Your task to perform on an android device: What's on my calendar tomorrow? Image 0: 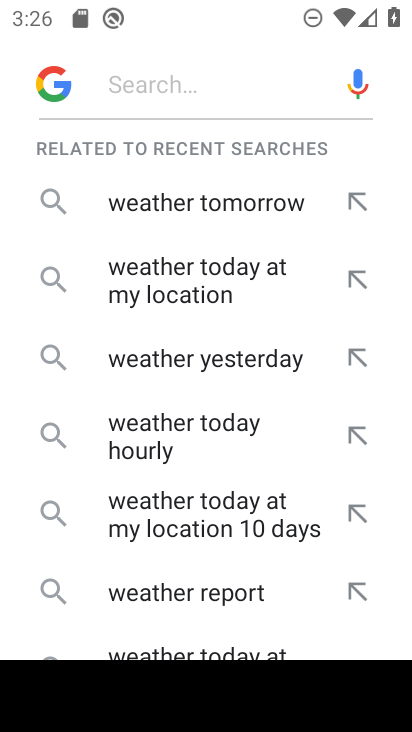
Step 0: press home button
Your task to perform on an android device: What's on my calendar tomorrow? Image 1: 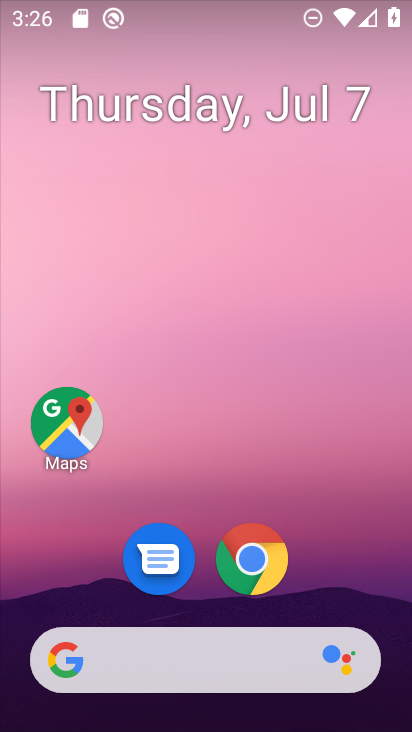
Step 1: drag from (372, 579) to (364, 148)
Your task to perform on an android device: What's on my calendar tomorrow? Image 2: 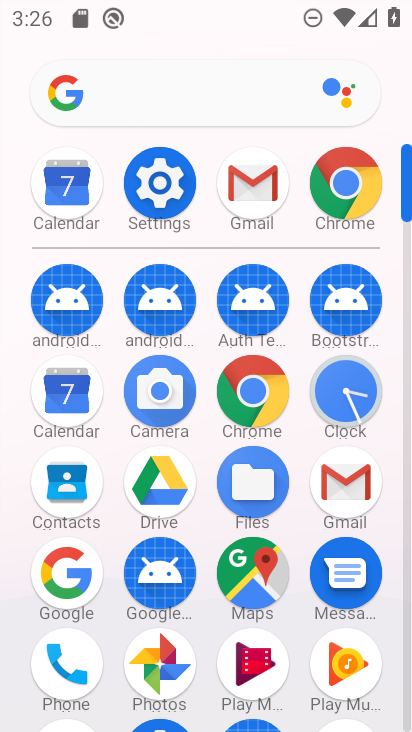
Step 2: click (81, 391)
Your task to perform on an android device: What's on my calendar tomorrow? Image 3: 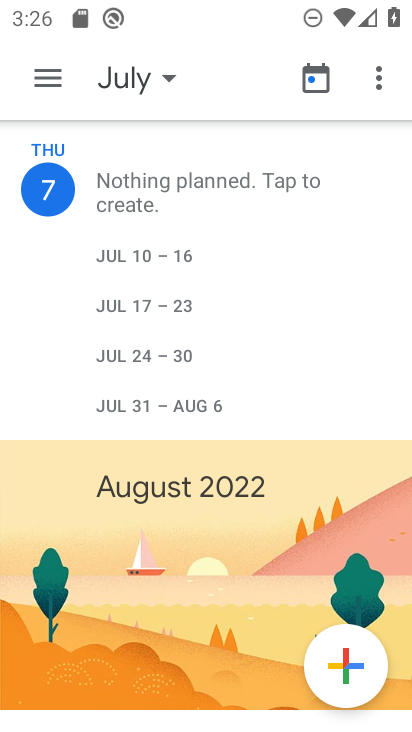
Step 3: click (168, 73)
Your task to perform on an android device: What's on my calendar tomorrow? Image 4: 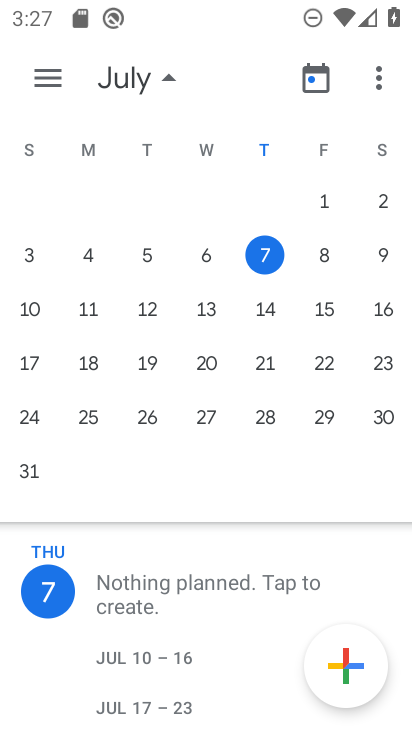
Step 4: click (325, 263)
Your task to perform on an android device: What's on my calendar tomorrow? Image 5: 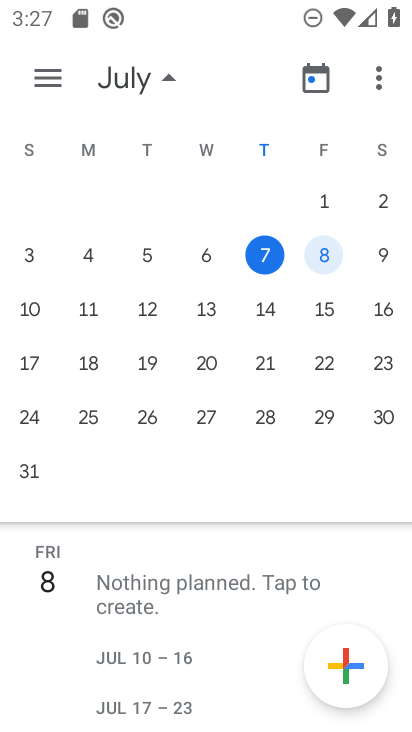
Step 5: task complete